Your task to perform on an android device: Do I have any events tomorrow? Image 0: 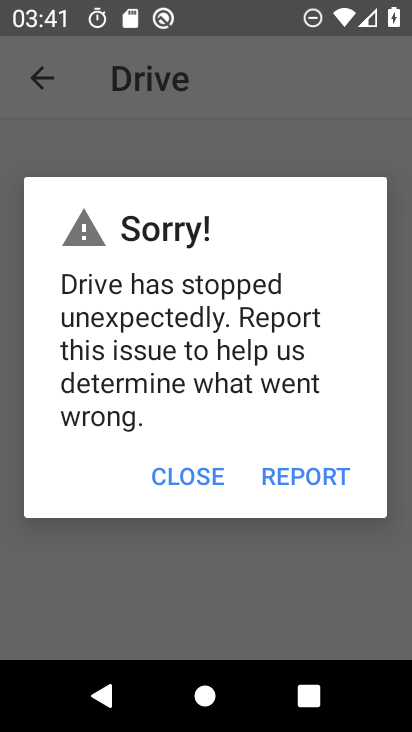
Step 0: click (172, 469)
Your task to perform on an android device: Do I have any events tomorrow? Image 1: 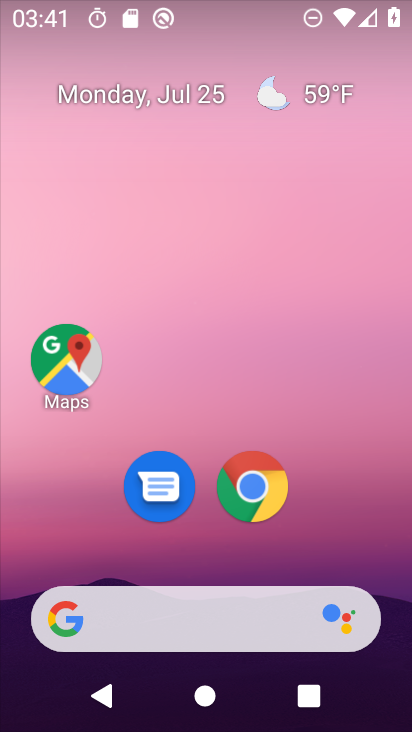
Step 1: click (180, 611)
Your task to perform on an android device: Do I have any events tomorrow? Image 2: 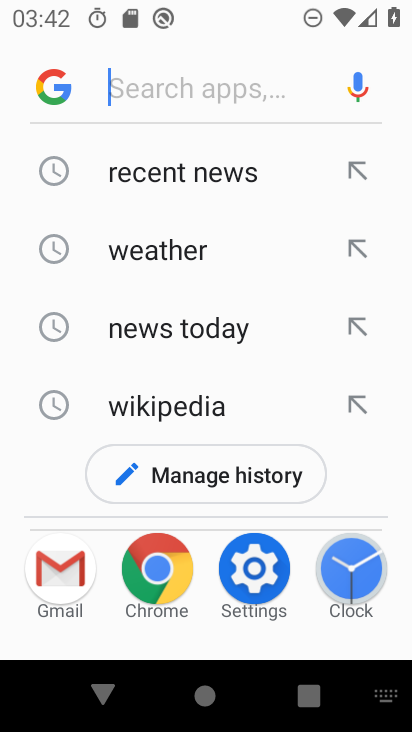
Step 2: click (148, 237)
Your task to perform on an android device: Do I have any events tomorrow? Image 3: 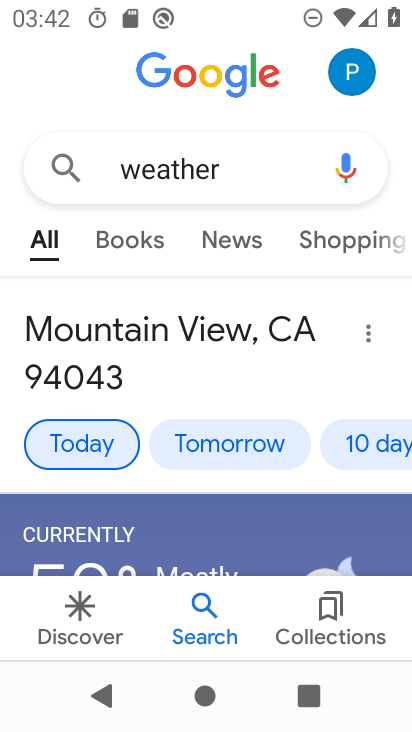
Step 3: click (209, 449)
Your task to perform on an android device: Do I have any events tomorrow? Image 4: 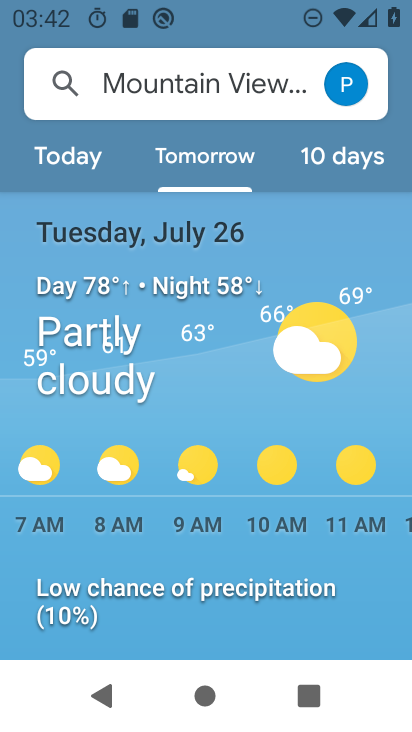
Step 4: task complete